Your task to perform on an android device: Open Chrome and go to settings Image 0: 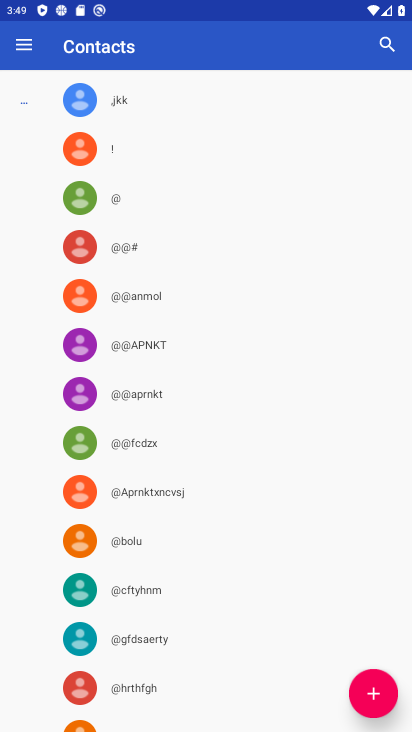
Step 0: press home button
Your task to perform on an android device: Open Chrome and go to settings Image 1: 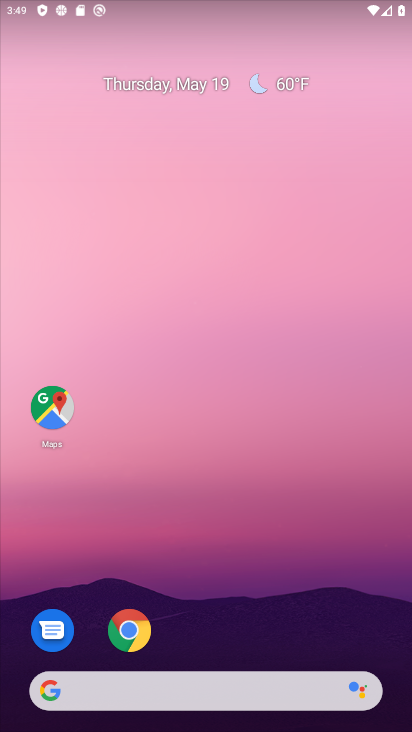
Step 1: click (122, 625)
Your task to perform on an android device: Open Chrome and go to settings Image 2: 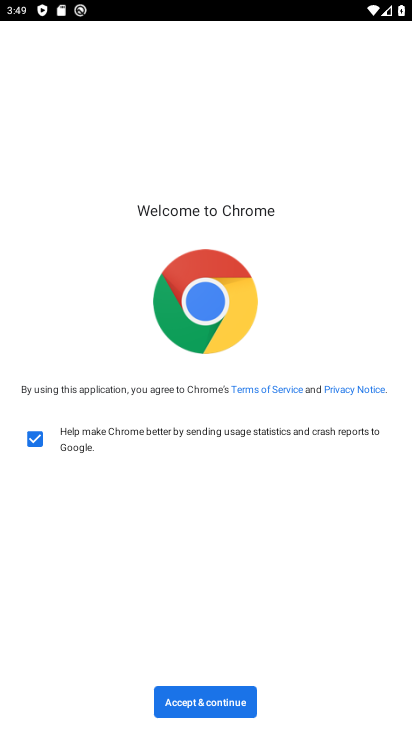
Step 2: click (199, 705)
Your task to perform on an android device: Open Chrome and go to settings Image 3: 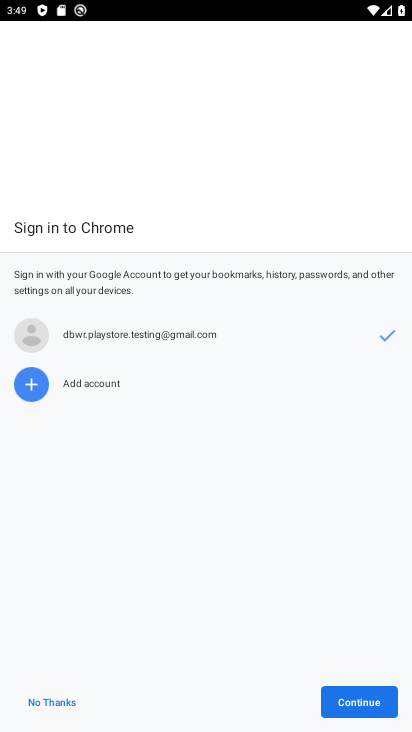
Step 3: click (343, 704)
Your task to perform on an android device: Open Chrome and go to settings Image 4: 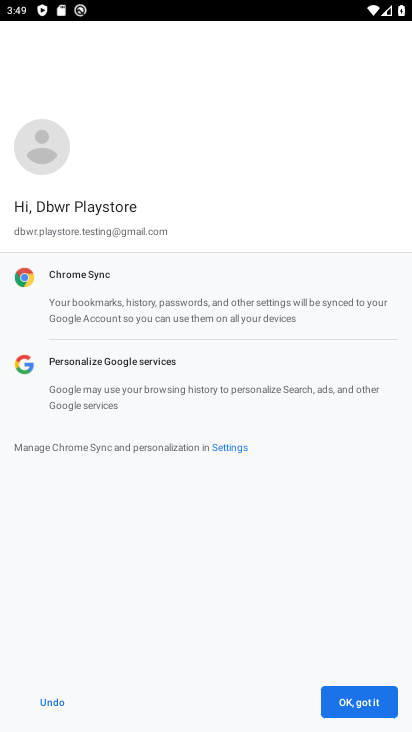
Step 4: click (359, 702)
Your task to perform on an android device: Open Chrome and go to settings Image 5: 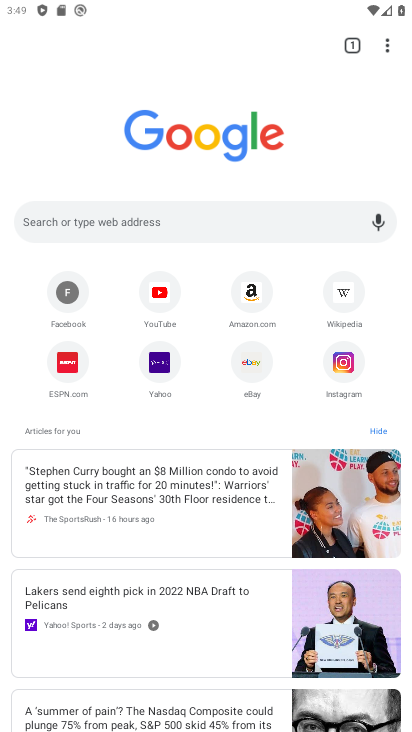
Step 5: click (388, 51)
Your task to perform on an android device: Open Chrome and go to settings Image 6: 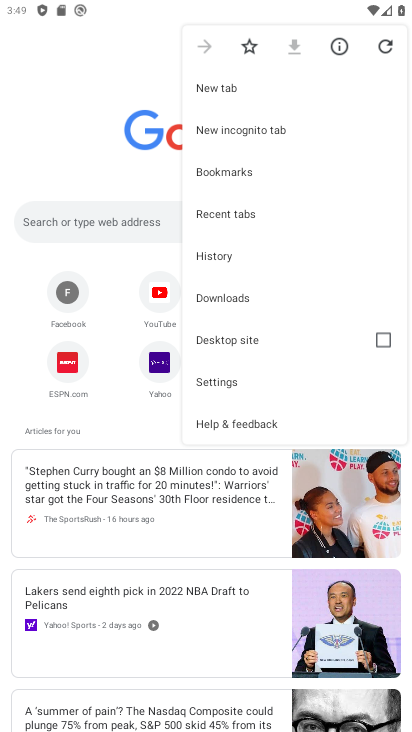
Step 6: click (221, 379)
Your task to perform on an android device: Open Chrome and go to settings Image 7: 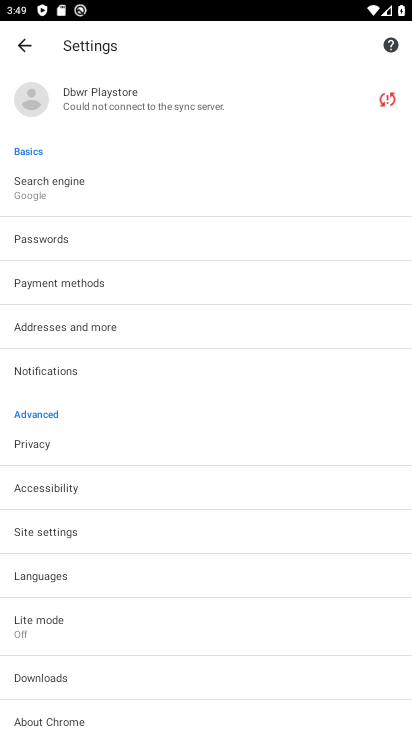
Step 7: task complete